Your task to perform on an android device: choose inbox layout in the gmail app Image 0: 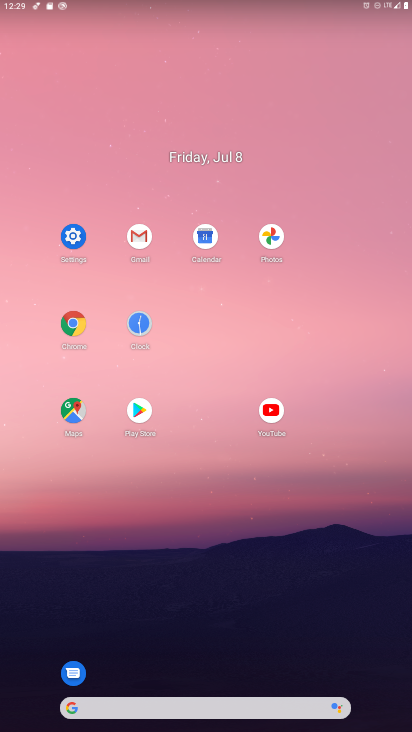
Step 0: click (140, 234)
Your task to perform on an android device: choose inbox layout in the gmail app Image 1: 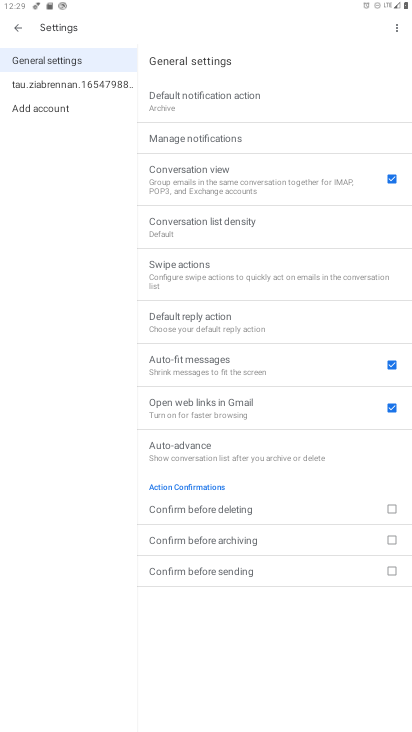
Step 1: click (84, 82)
Your task to perform on an android device: choose inbox layout in the gmail app Image 2: 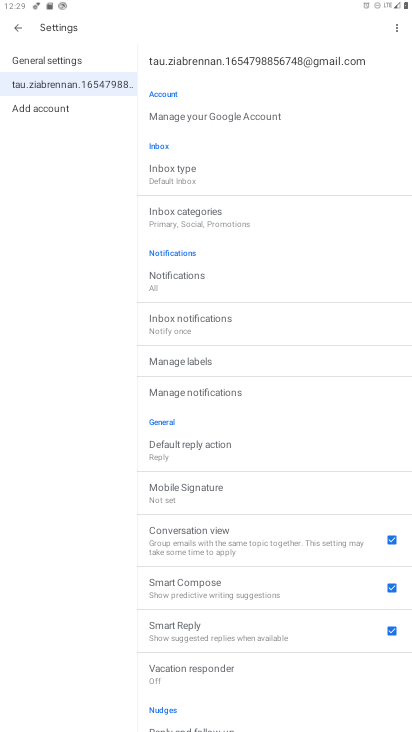
Step 2: click (178, 180)
Your task to perform on an android device: choose inbox layout in the gmail app Image 3: 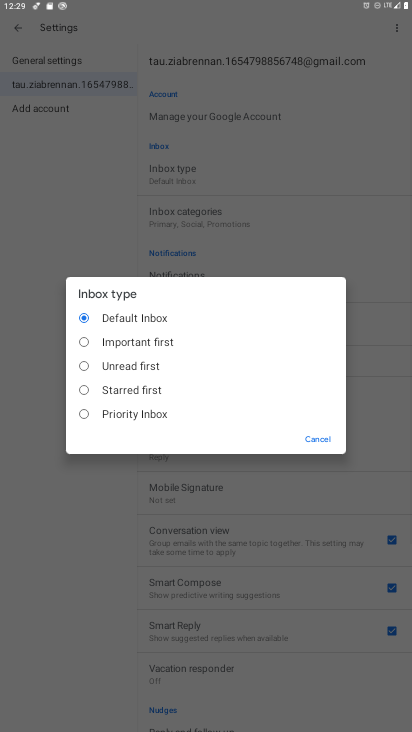
Step 3: task complete